Your task to perform on an android device: Open the phone app and click the voicemail tab. Image 0: 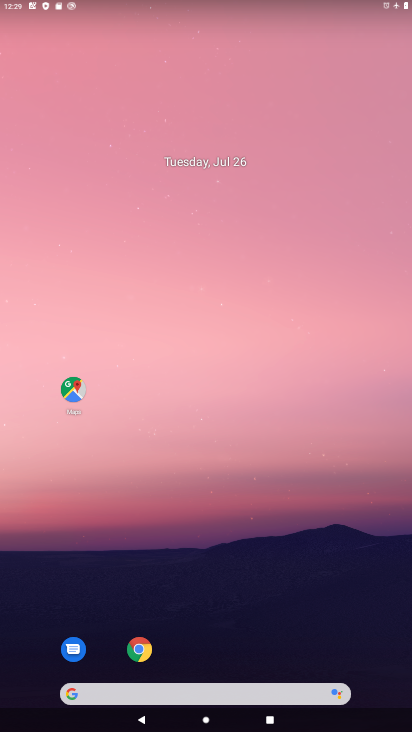
Step 0: drag from (232, 683) to (232, 57)
Your task to perform on an android device: Open the phone app and click the voicemail tab. Image 1: 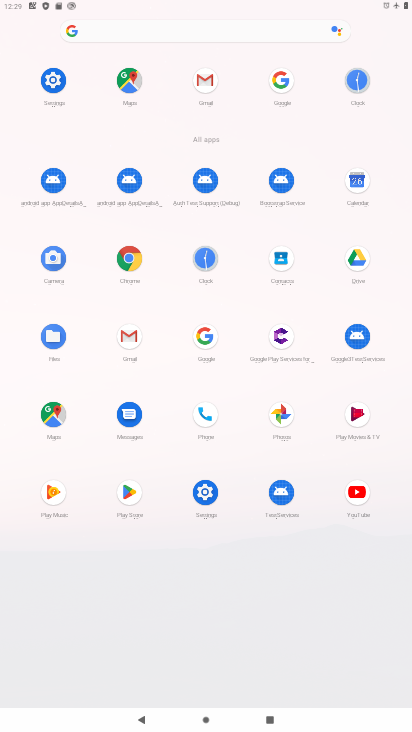
Step 1: click (206, 414)
Your task to perform on an android device: Open the phone app and click the voicemail tab. Image 2: 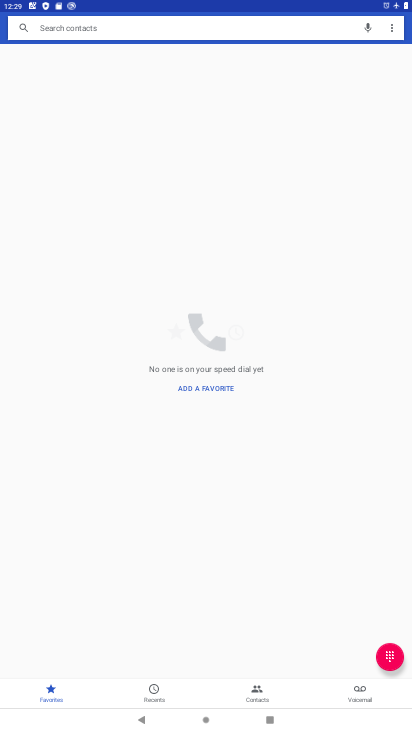
Step 2: click (360, 692)
Your task to perform on an android device: Open the phone app and click the voicemail tab. Image 3: 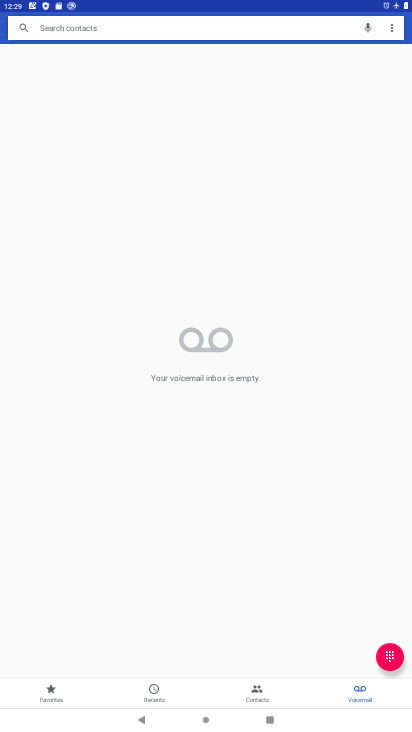
Step 3: task complete